Your task to perform on an android device: Search for seafood restaurants on Google Maps Image 0: 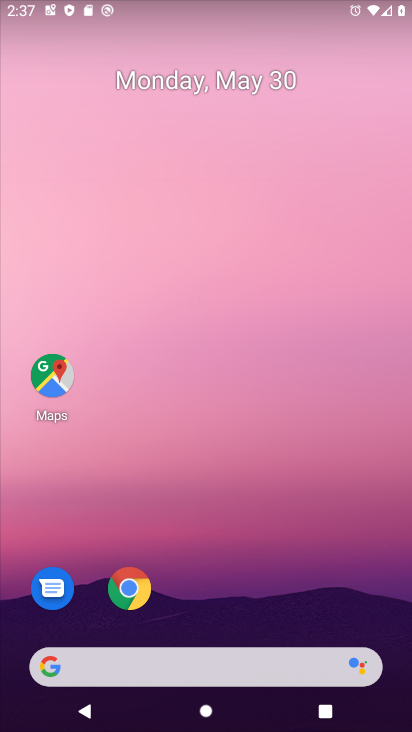
Step 0: click (60, 357)
Your task to perform on an android device: Search for seafood restaurants on Google Maps Image 1: 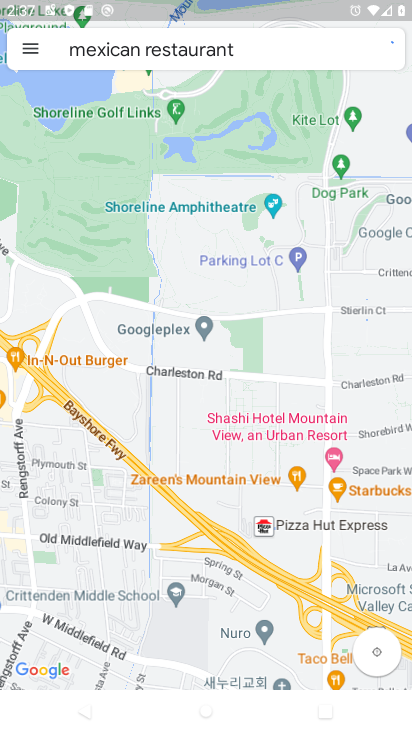
Step 1: click (208, 50)
Your task to perform on an android device: Search for seafood restaurants on Google Maps Image 2: 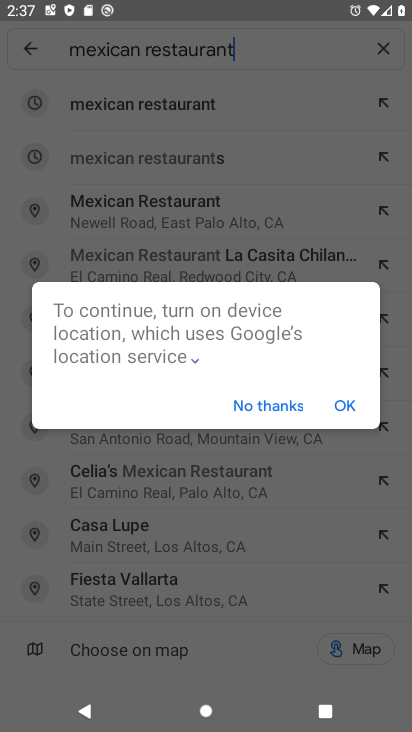
Step 2: click (339, 403)
Your task to perform on an android device: Search for seafood restaurants on Google Maps Image 3: 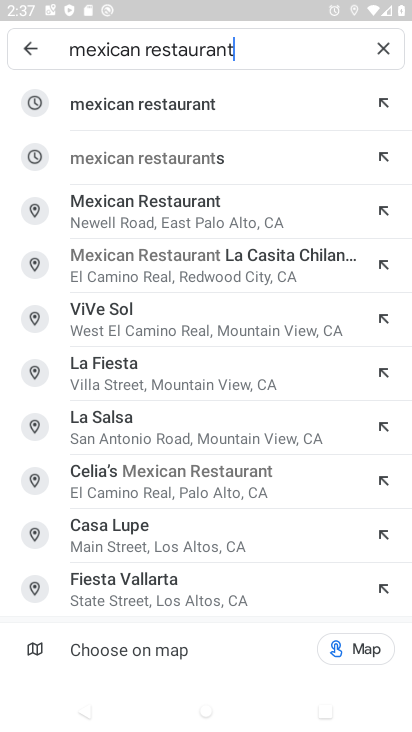
Step 3: click (393, 46)
Your task to perform on an android device: Search for seafood restaurants on Google Maps Image 4: 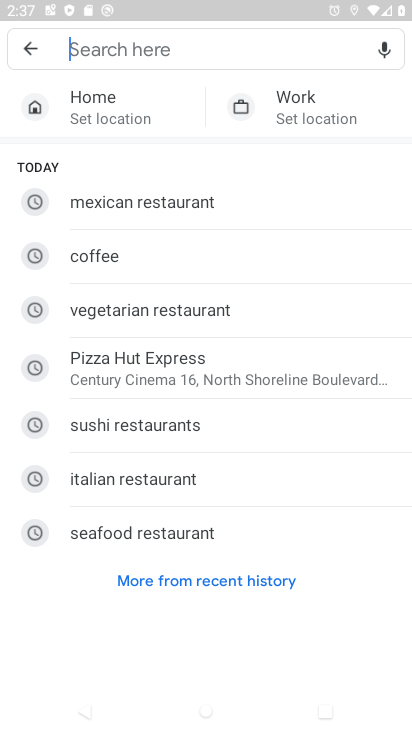
Step 4: click (200, 521)
Your task to perform on an android device: Search for seafood restaurants on Google Maps Image 5: 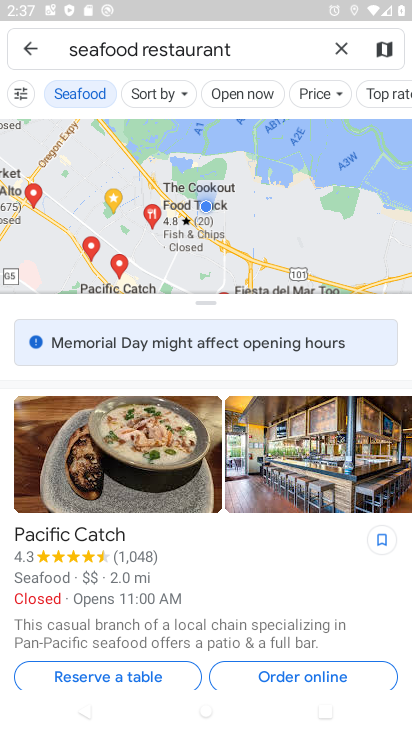
Step 5: task complete